Your task to perform on an android device: turn on location history Image 0: 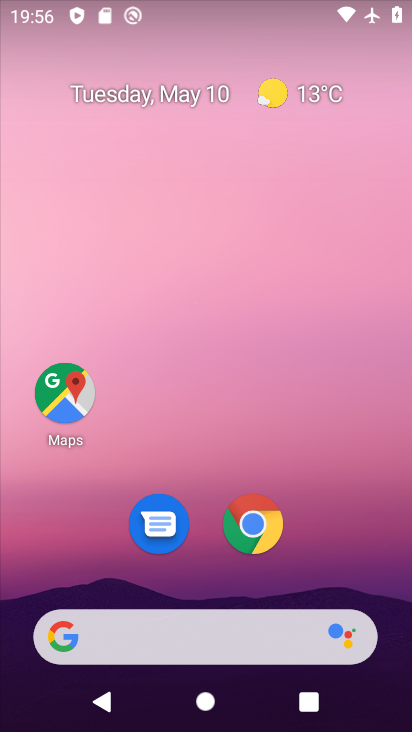
Step 0: drag from (318, 534) to (255, 47)
Your task to perform on an android device: turn on location history Image 1: 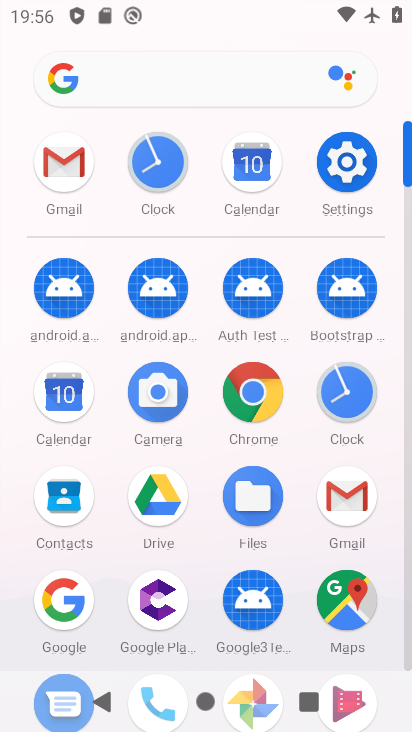
Step 1: click (346, 162)
Your task to perform on an android device: turn on location history Image 2: 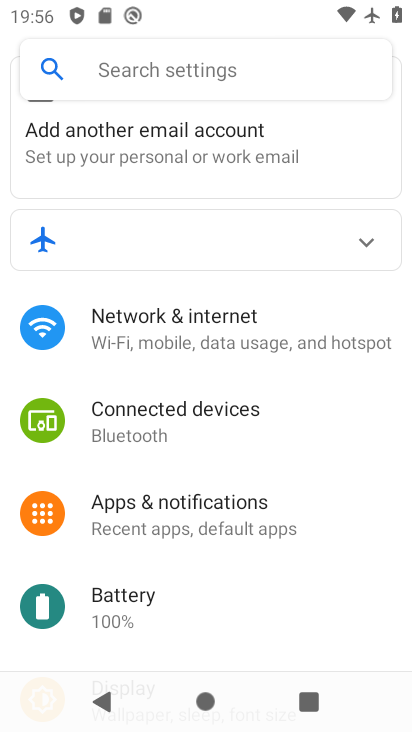
Step 2: drag from (246, 566) to (204, 104)
Your task to perform on an android device: turn on location history Image 3: 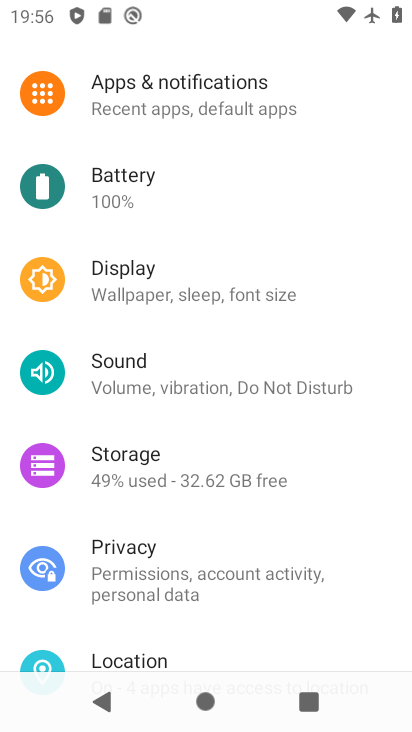
Step 3: drag from (206, 431) to (221, 131)
Your task to perform on an android device: turn on location history Image 4: 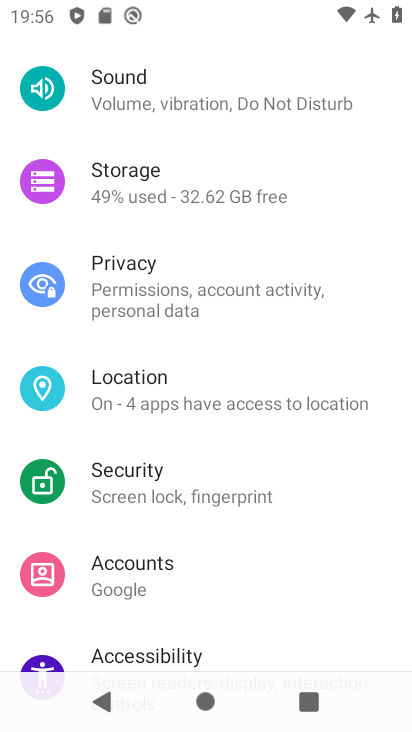
Step 4: click (223, 391)
Your task to perform on an android device: turn on location history Image 5: 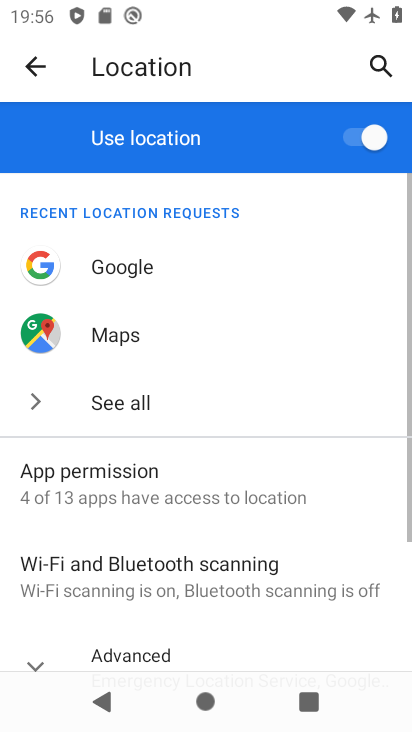
Step 5: click (31, 658)
Your task to perform on an android device: turn on location history Image 6: 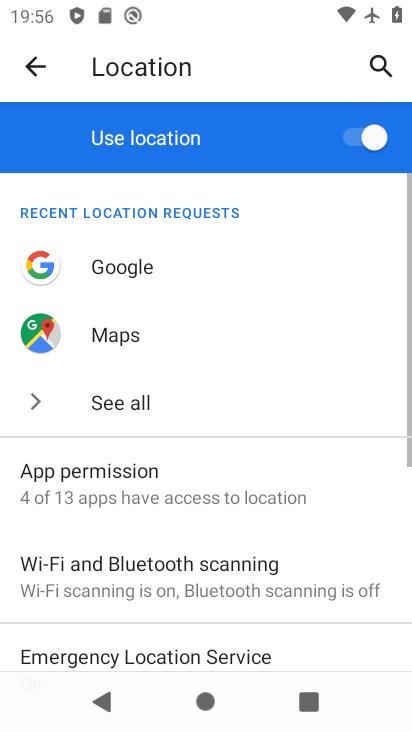
Step 6: drag from (210, 566) to (210, 167)
Your task to perform on an android device: turn on location history Image 7: 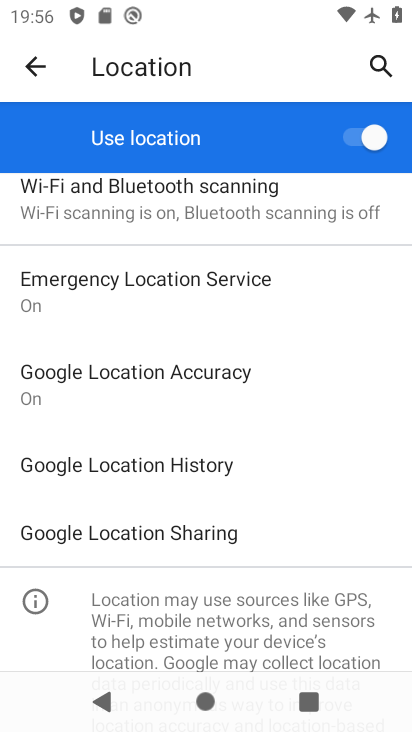
Step 7: click (203, 470)
Your task to perform on an android device: turn on location history Image 8: 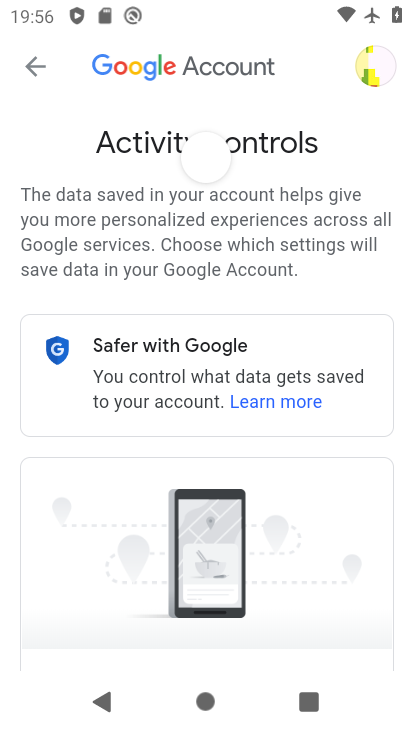
Step 8: drag from (305, 549) to (260, 107)
Your task to perform on an android device: turn on location history Image 9: 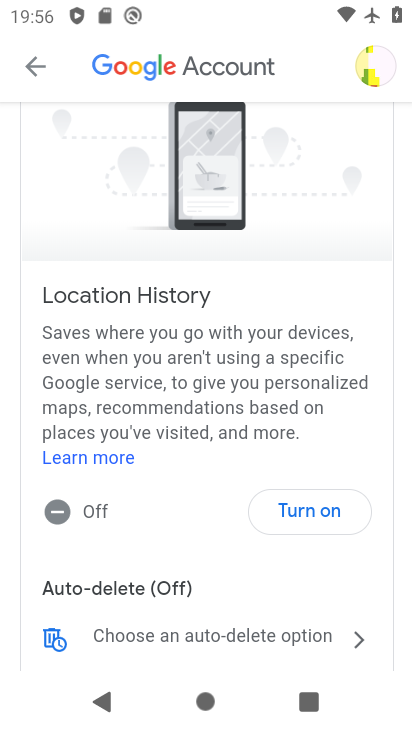
Step 9: click (324, 505)
Your task to perform on an android device: turn on location history Image 10: 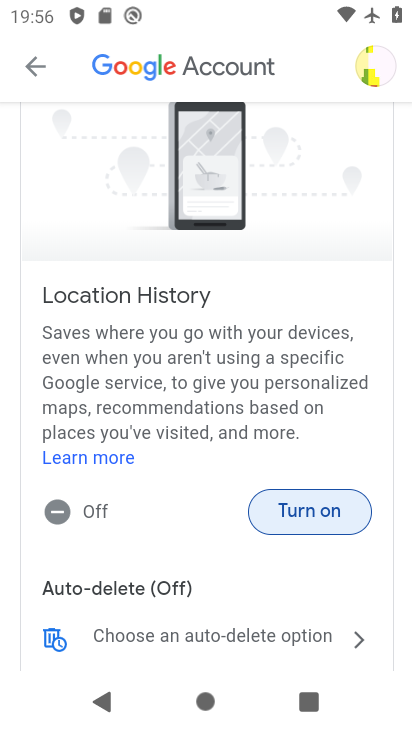
Step 10: click (324, 505)
Your task to perform on an android device: turn on location history Image 11: 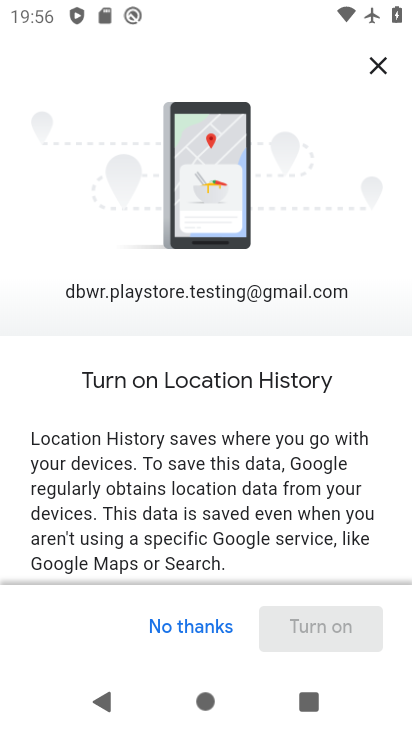
Step 11: drag from (236, 514) to (194, 115)
Your task to perform on an android device: turn on location history Image 12: 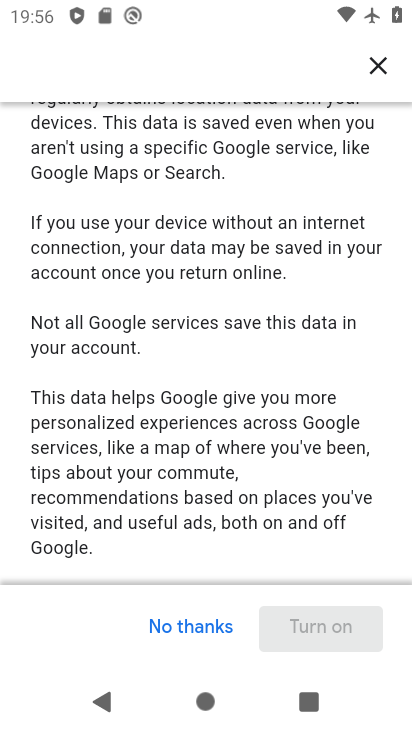
Step 12: drag from (250, 493) to (251, 114)
Your task to perform on an android device: turn on location history Image 13: 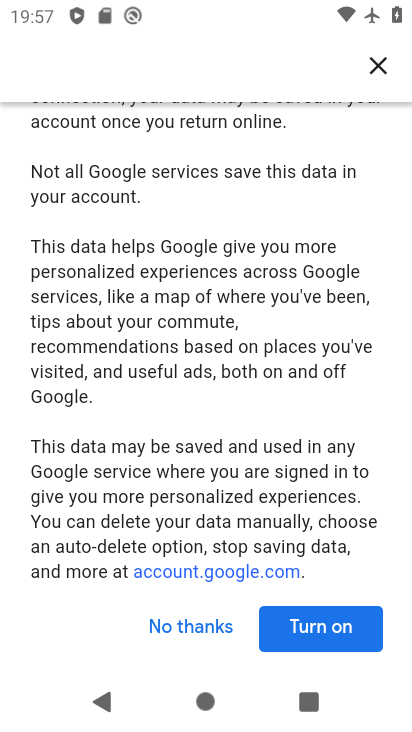
Step 13: click (360, 629)
Your task to perform on an android device: turn on location history Image 14: 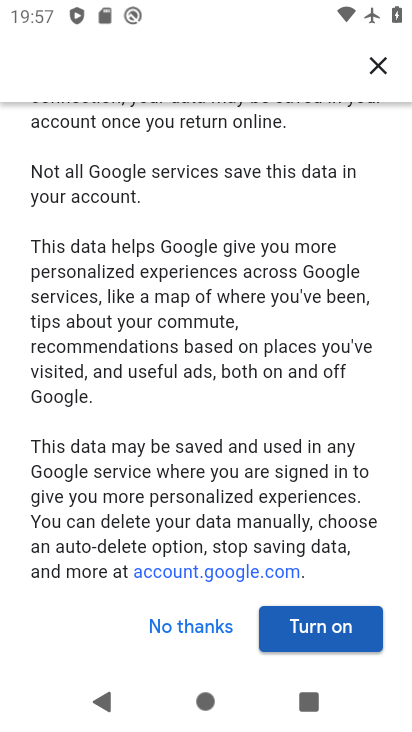
Step 14: click (331, 627)
Your task to perform on an android device: turn on location history Image 15: 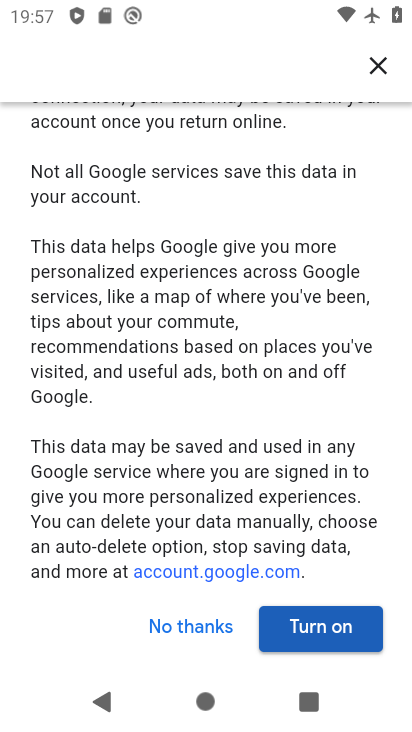
Step 15: click (334, 619)
Your task to perform on an android device: turn on location history Image 16: 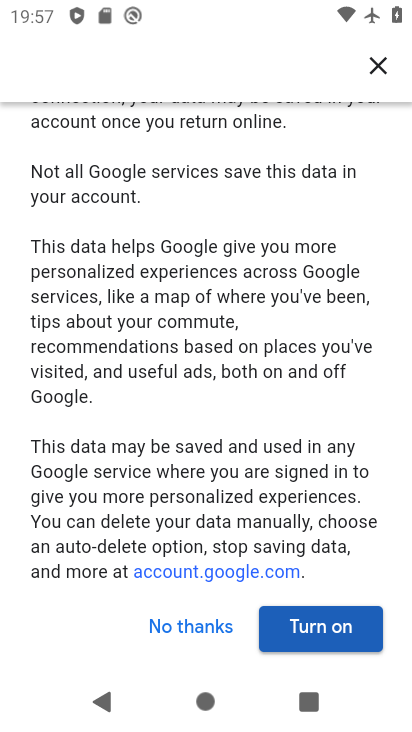
Step 16: click (339, 626)
Your task to perform on an android device: turn on location history Image 17: 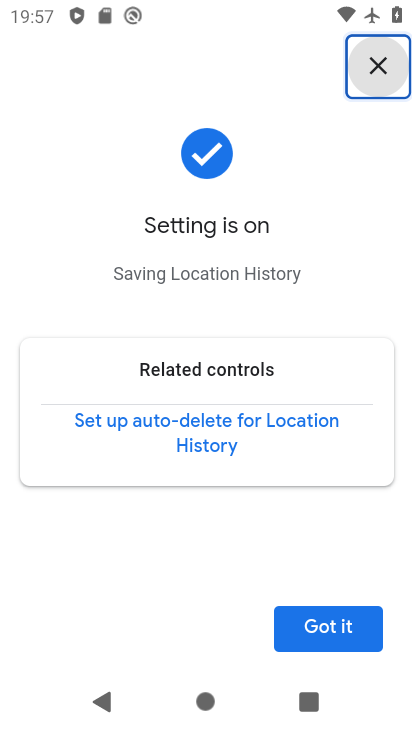
Step 17: click (339, 626)
Your task to perform on an android device: turn on location history Image 18: 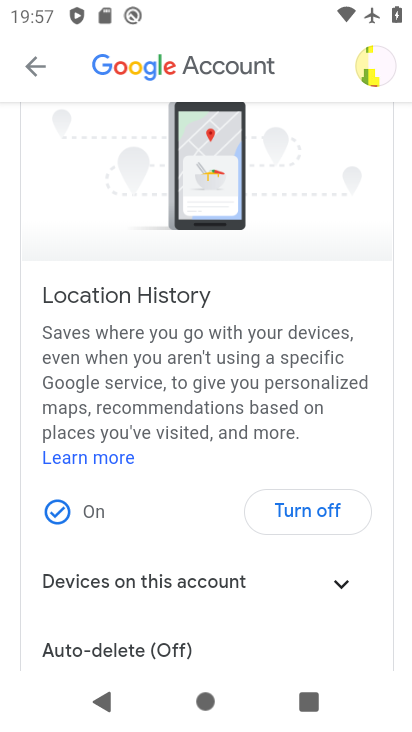
Step 18: task complete